Your task to perform on an android device: change notifications settings Image 0: 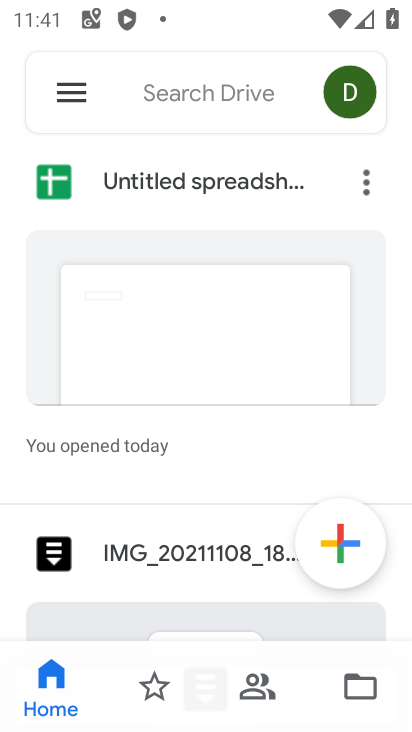
Step 0: press back button
Your task to perform on an android device: change notifications settings Image 1: 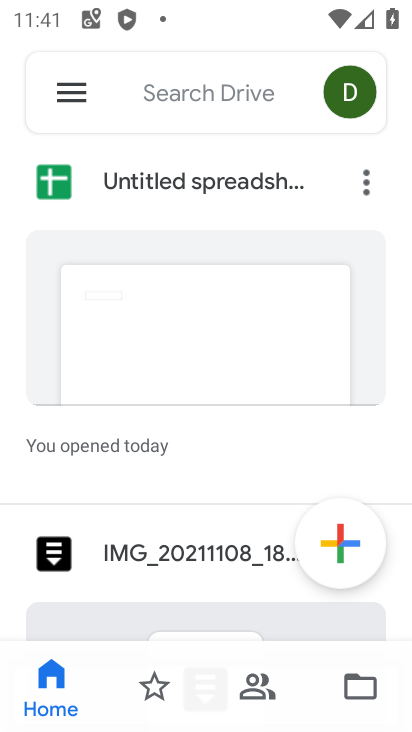
Step 1: press back button
Your task to perform on an android device: change notifications settings Image 2: 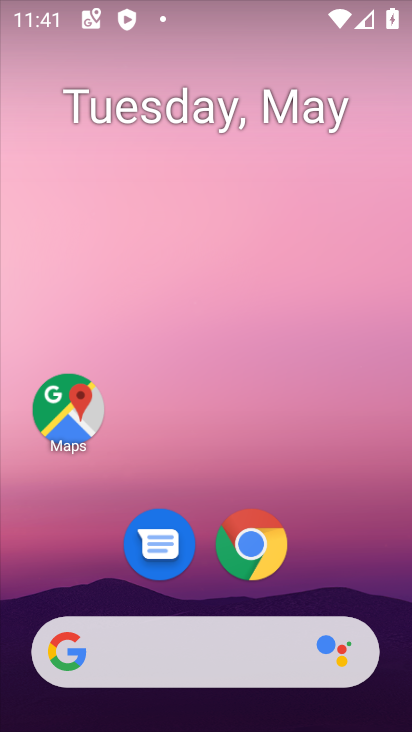
Step 2: drag from (254, 597) to (235, 294)
Your task to perform on an android device: change notifications settings Image 3: 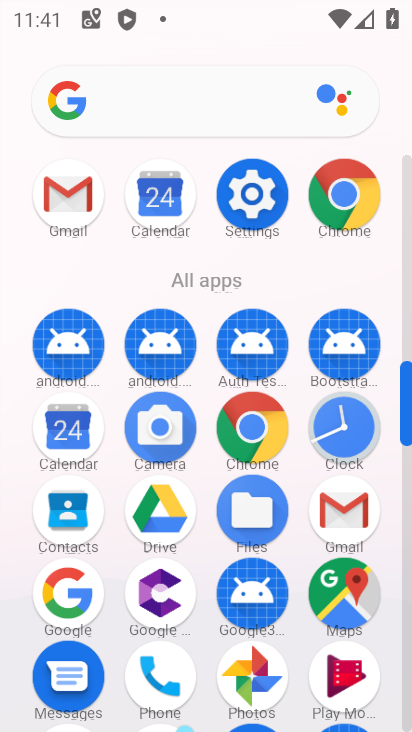
Step 3: click (250, 194)
Your task to perform on an android device: change notifications settings Image 4: 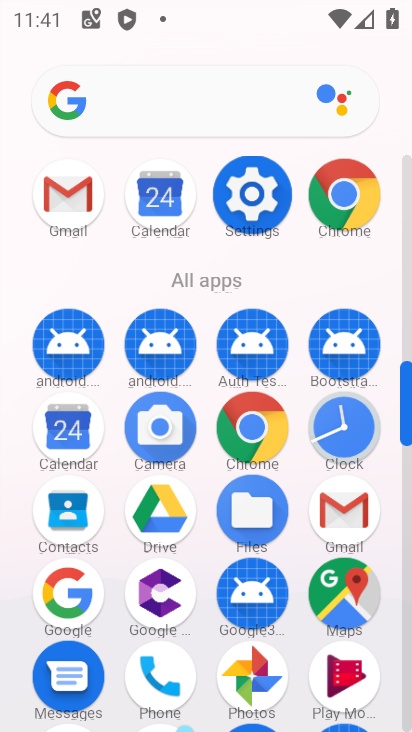
Step 4: click (250, 194)
Your task to perform on an android device: change notifications settings Image 5: 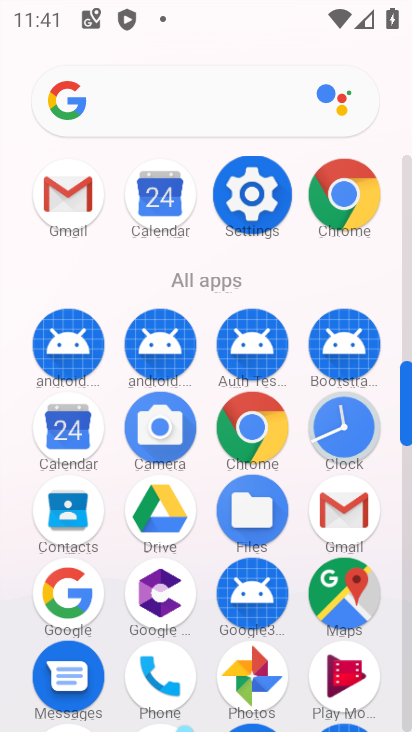
Step 5: click (250, 193)
Your task to perform on an android device: change notifications settings Image 6: 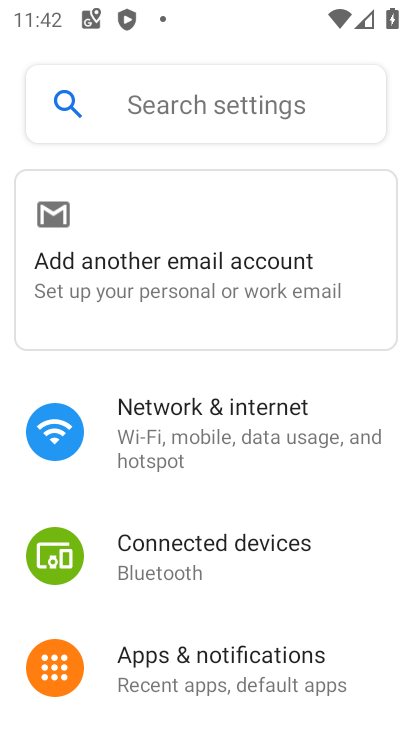
Step 6: click (193, 423)
Your task to perform on an android device: change notifications settings Image 7: 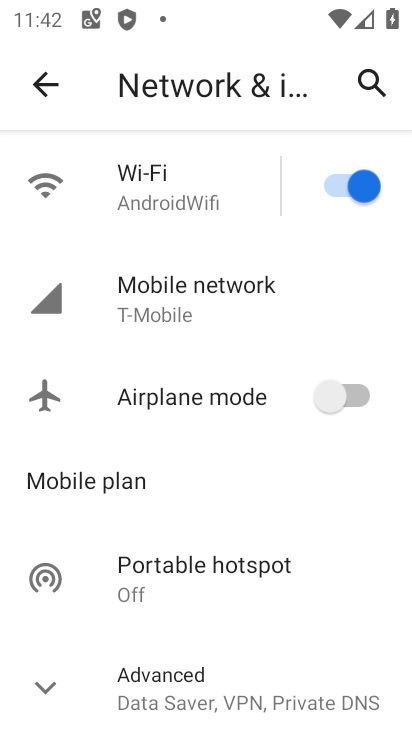
Step 7: drag from (239, 598) to (198, 140)
Your task to perform on an android device: change notifications settings Image 8: 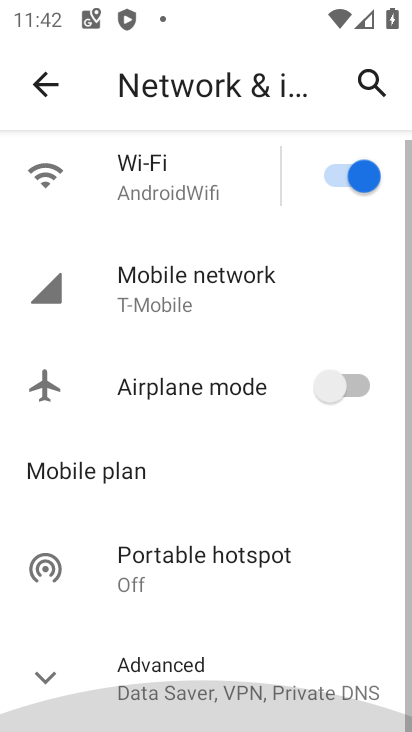
Step 8: drag from (243, 495) to (223, 148)
Your task to perform on an android device: change notifications settings Image 9: 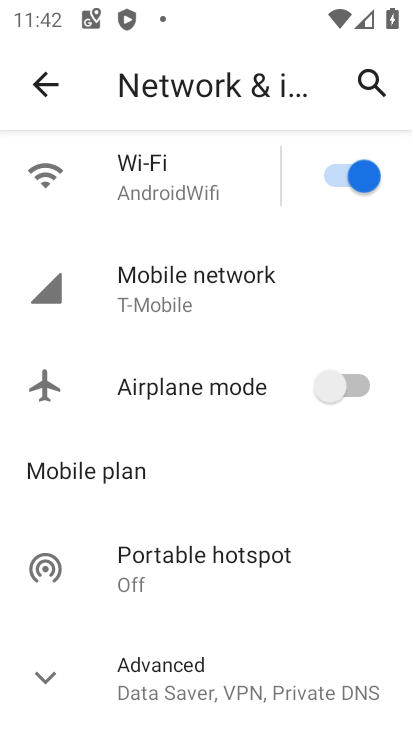
Step 9: click (37, 90)
Your task to perform on an android device: change notifications settings Image 10: 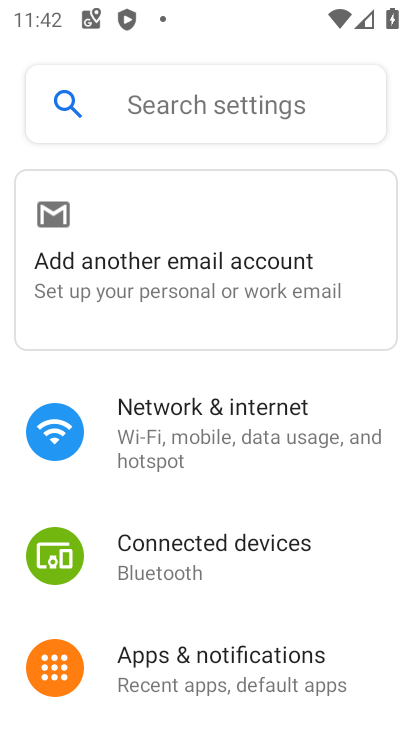
Step 10: click (235, 665)
Your task to perform on an android device: change notifications settings Image 11: 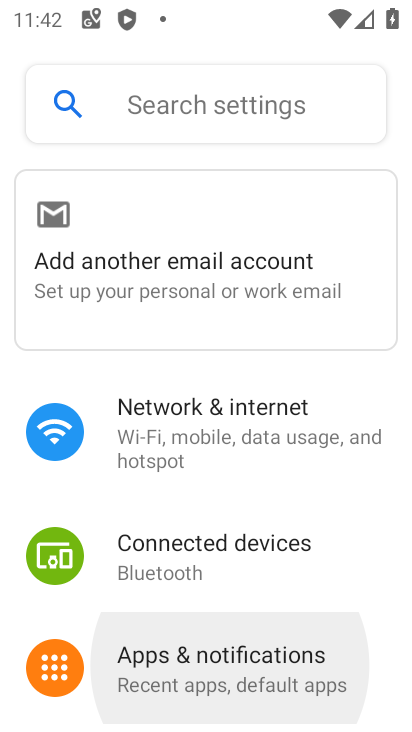
Step 11: click (235, 665)
Your task to perform on an android device: change notifications settings Image 12: 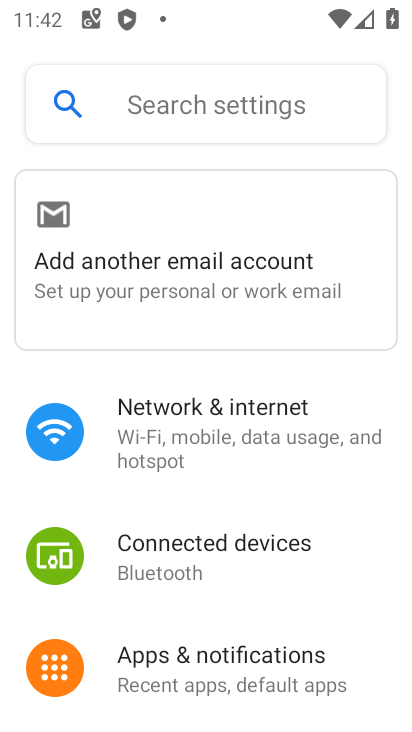
Step 12: click (234, 665)
Your task to perform on an android device: change notifications settings Image 13: 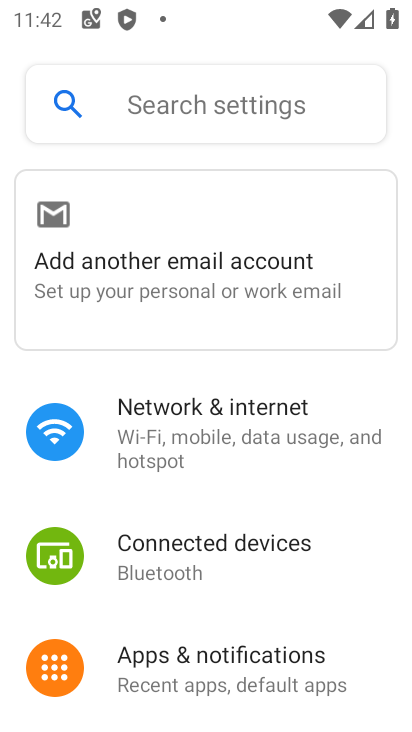
Step 13: click (231, 662)
Your task to perform on an android device: change notifications settings Image 14: 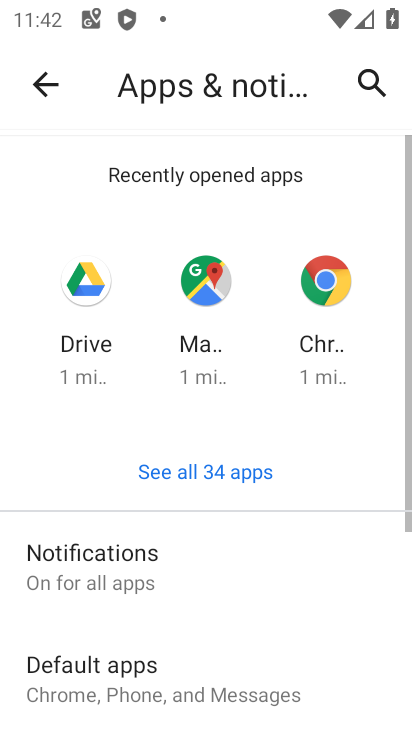
Step 14: drag from (230, 553) to (252, 239)
Your task to perform on an android device: change notifications settings Image 15: 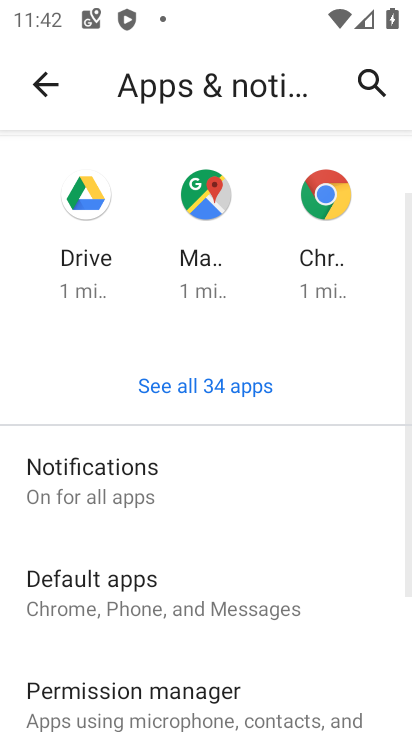
Step 15: drag from (249, 576) to (262, 169)
Your task to perform on an android device: change notifications settings Image 16: 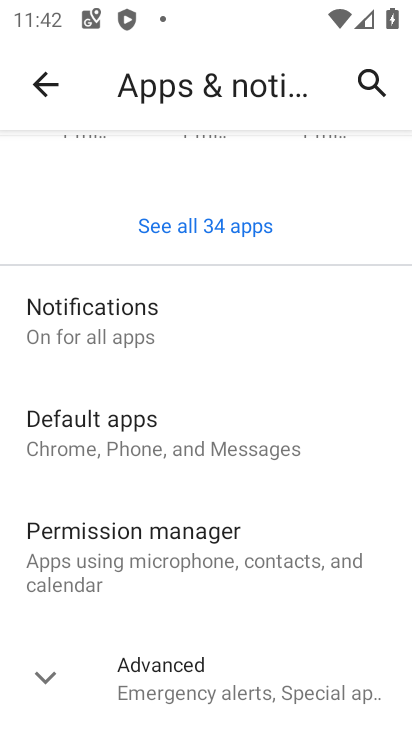
Step 16: click (81, 332)
Your task to perform on an android device: change notifications settings Image 17: 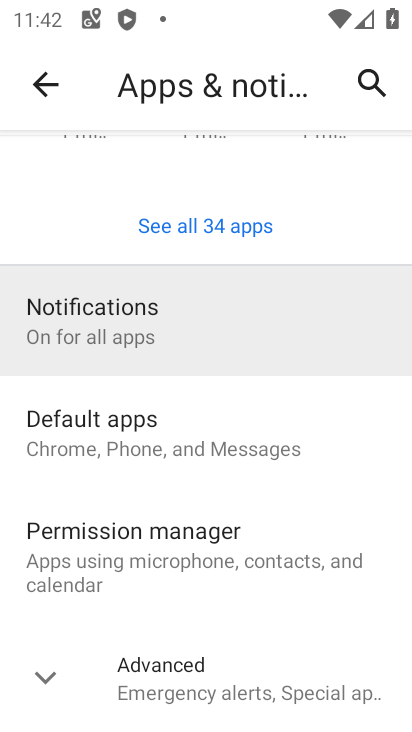
Step 17: click (81, 331)
Your task to perform on an android device: change notifications settings Image 18: 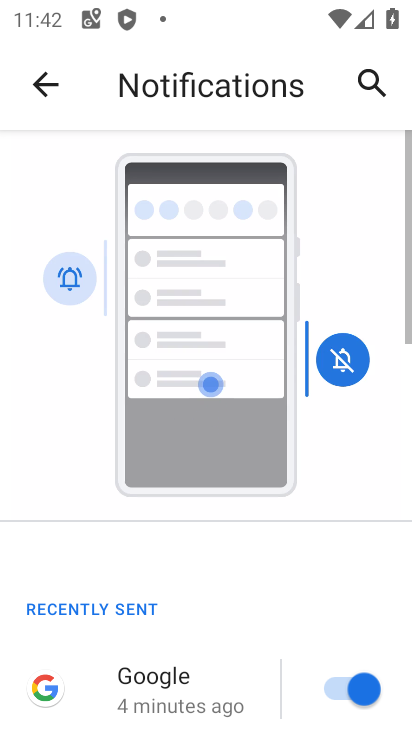
Step 18: drag from (217, 563) to (149, 212)
Your task to perform on an android device: change notifications settings Image 19: 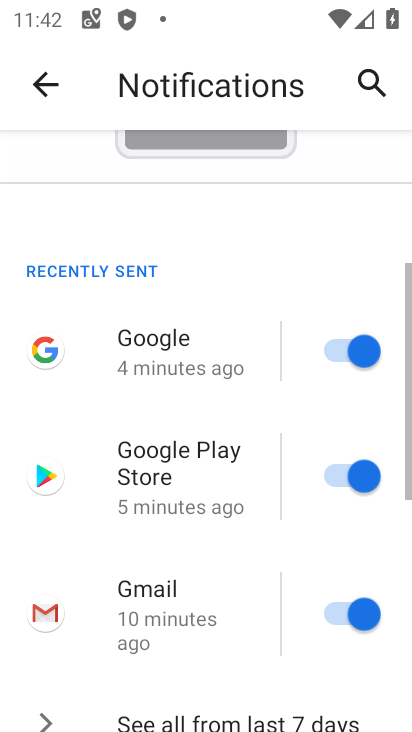
Step 19: drag from (244, 482) to (244, 85)
Your task to perform on an android device: change notifications settings Image 20: 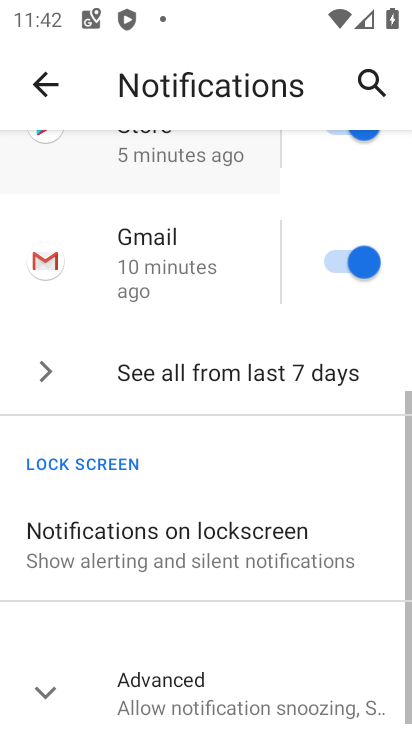
Step 20: drag from (280, 421) to (249, 12)
Your task to perform on an android device: change notifications settings Image 21: 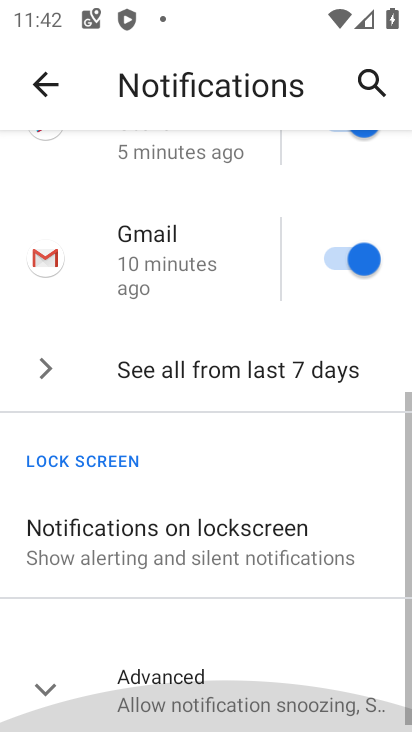
Step 21: drag from (277, 339) to (277, 0)
Your task to perform on an android device: change notifications settings Image 22: 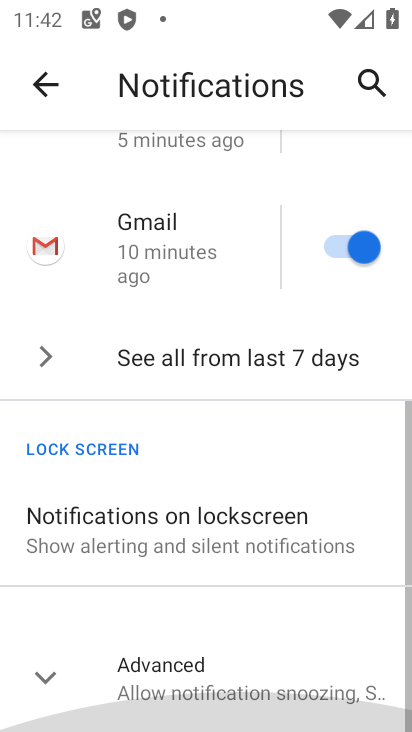
Step 22: drag from (269, 414) to (269, 78)
Your task to perform on an android device: change notifications settings Image 23: 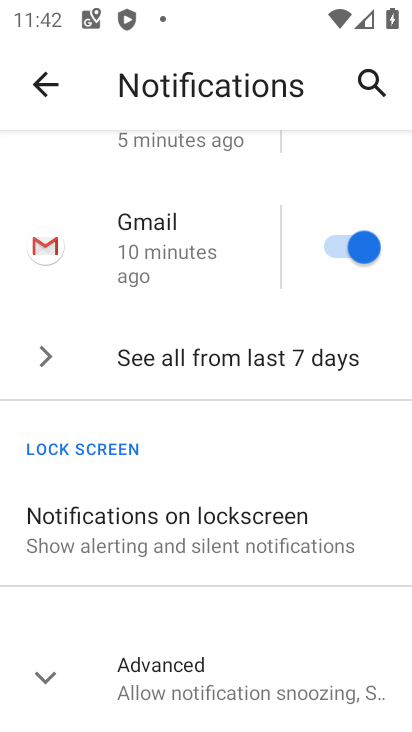
Step 23: click (177, 679)
Your task to perform on an android device: change notifications settings Image 24: 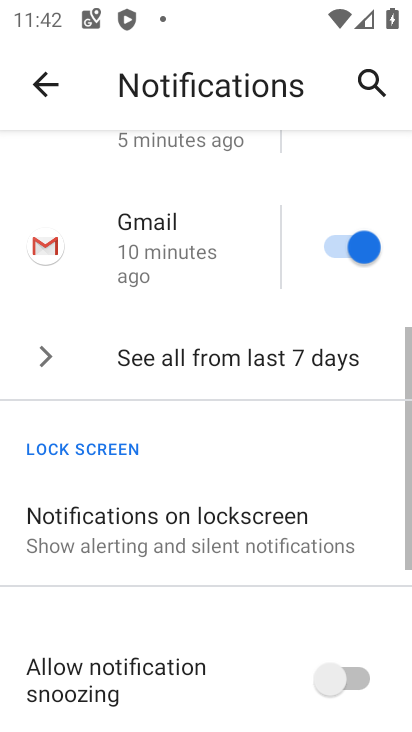
Step 24: click (177, 679)
Your task to perform on an android device: change notifications settings Image 25: 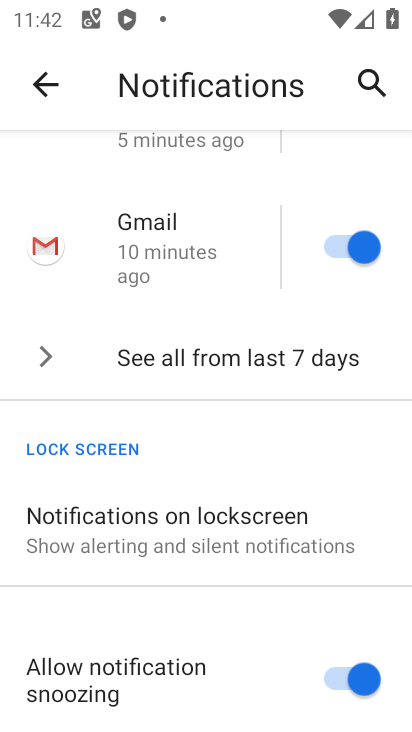
Step 25: task complete